Your task to perform on an android device: change your default location settings in chrome Image 0: 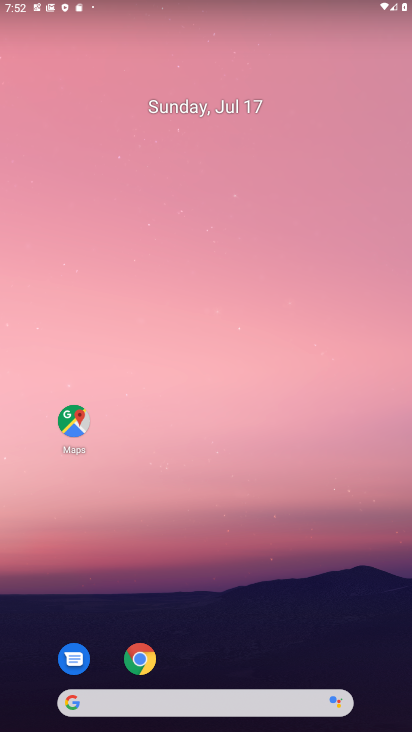
Step 0: click (138, 655)
Your task to perform on an android device: change your default location settings in chrome Image 1: 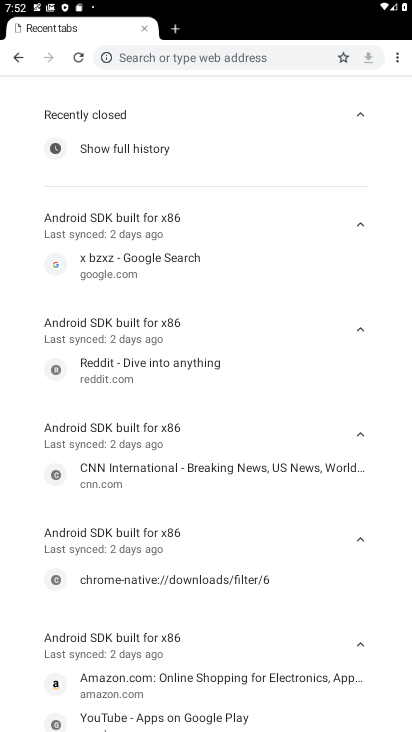
Step 1: click (396, 60)
Your task to perform on an android device: change your default location settings in chrome Image 2: 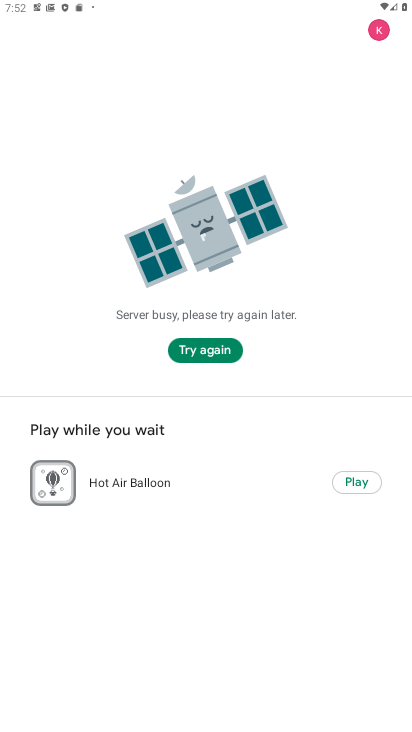
Step 2: press back button
Your task to perform on an android device: change your default location settings in chrome Image 3: 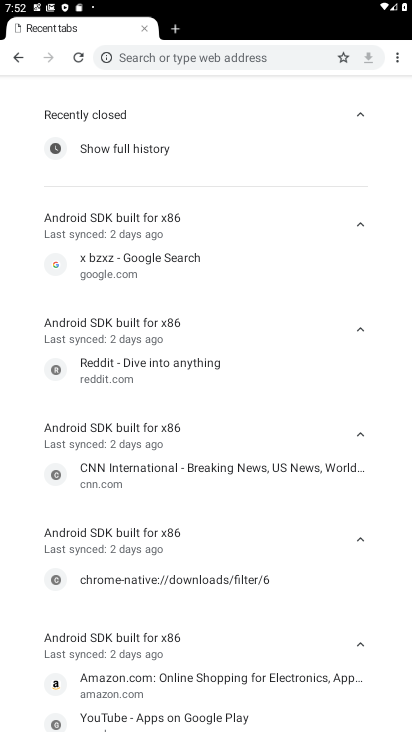
Step 3: click (388, 48)
Your task to perform on an android device: change your default location settings in chrome Image 4: 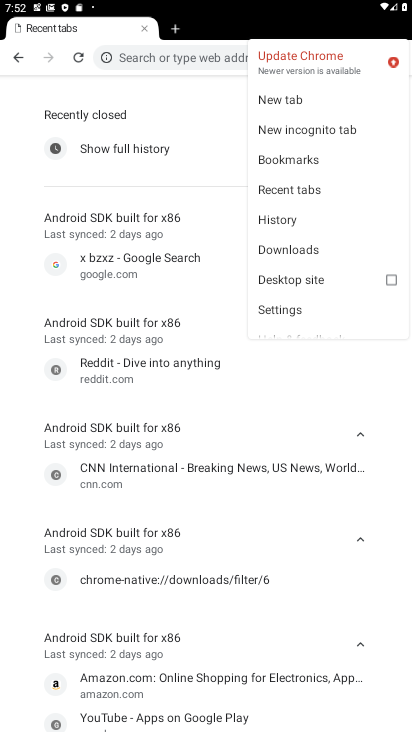
Step 4: click (279, 302)
Your task to perform on an android device: change your default location settings in chrome Image 5: 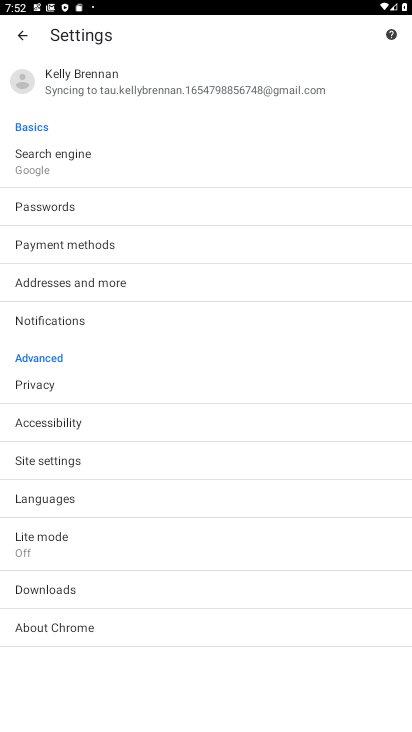
Step 5: click (62, 461)
Your task to perform on an android device: change your default location settings in chrome Image 6: 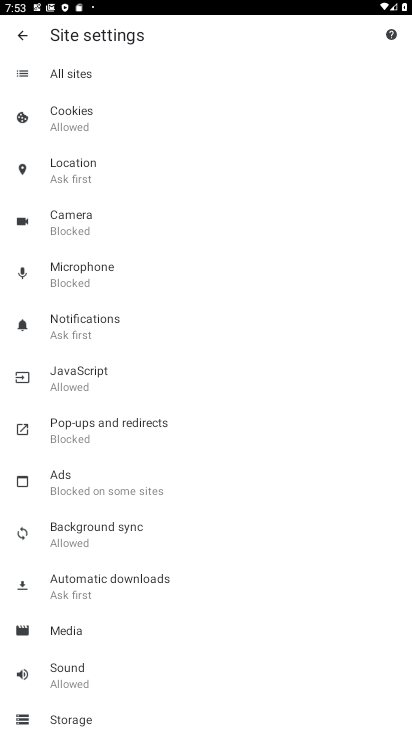
Step 6: click (156, 169)
Your task to perform on an android device: change your default location settings in chrome Image 7: 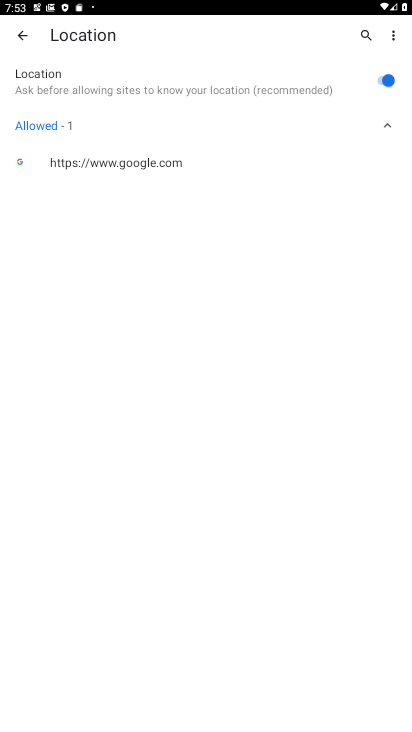
Step 7: click (380, 75)
Your task to perform on an android device: change your default location settings in chrome Image 8: 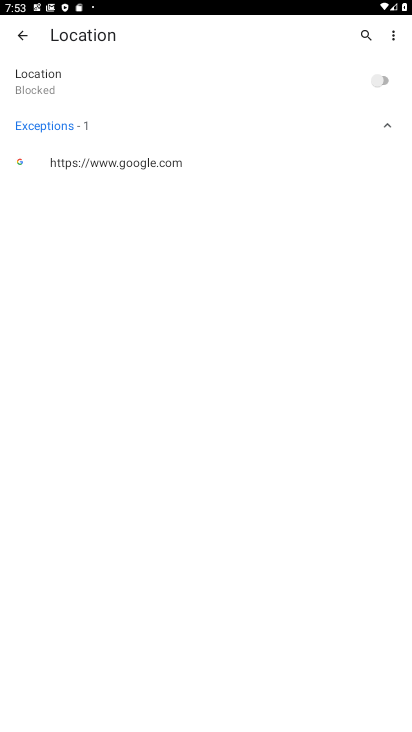
Step 8: task complete